Your task to perform on an android device: choose inbox layout in the gmail app Image 0: 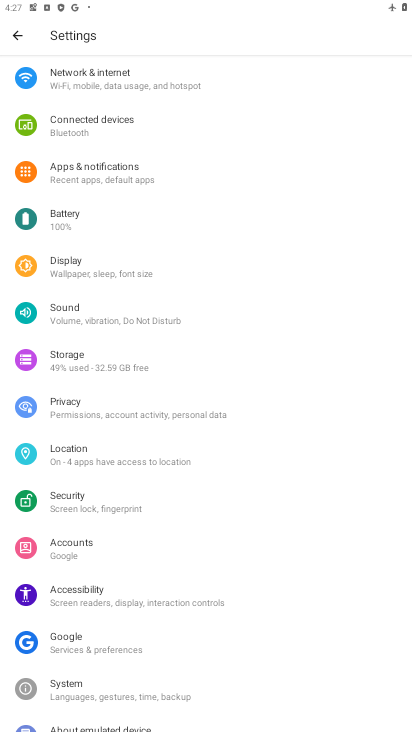
Step 0: press home button
Your task to perform on an android device: choose inbox layout in the gmail app Image 1: 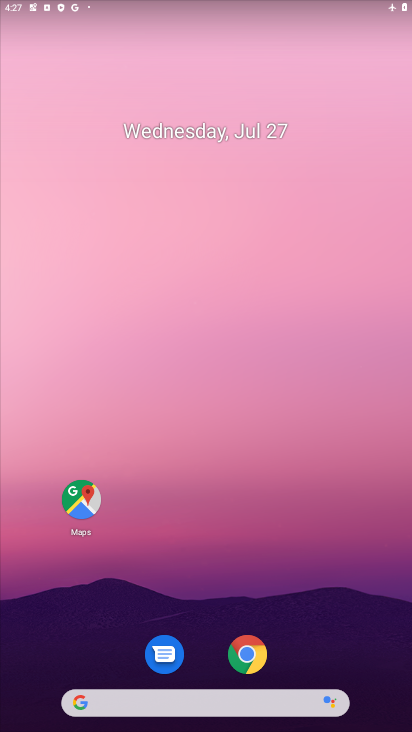
Step 1: drag from (141, 691) to (209, 259)
Your task to perform on an android device: choose inbox layout in the gmail app Image 2: 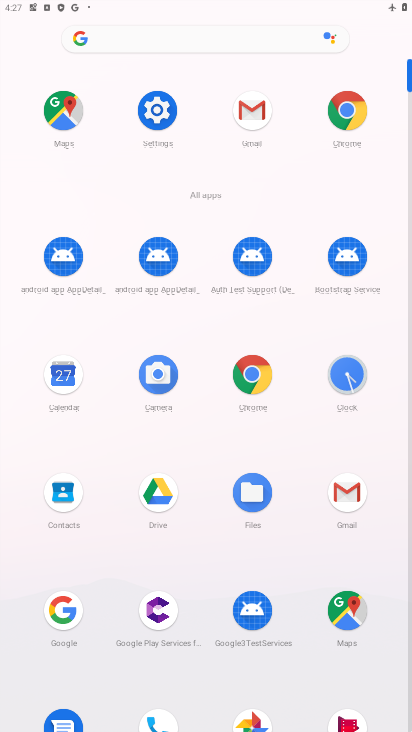
Step 2: click (351, 494)
Your task to perform on an android device: choose inbox layout in the gmail app Image 3: 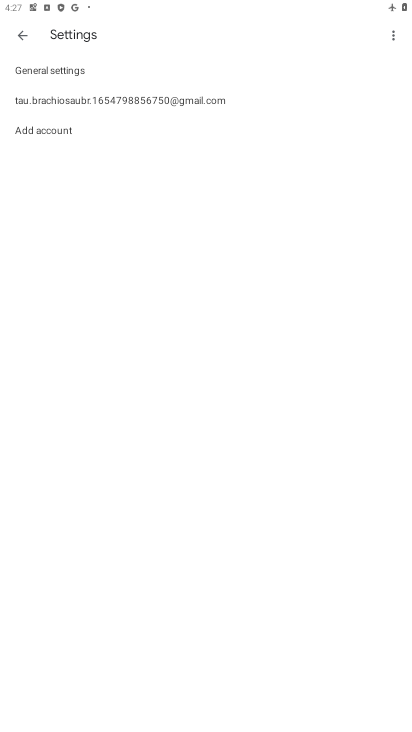
Step 3: click (64, 104)
Your task to perform on an android device: choose inbox layout in the gmail app Image 4: 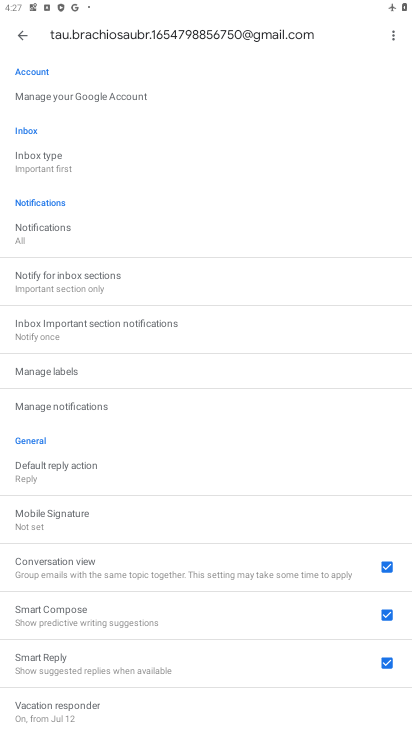
Step 4: click (57, 166)
Your task to perform on an android device: choose inbox layout in the gmail app Image 5: 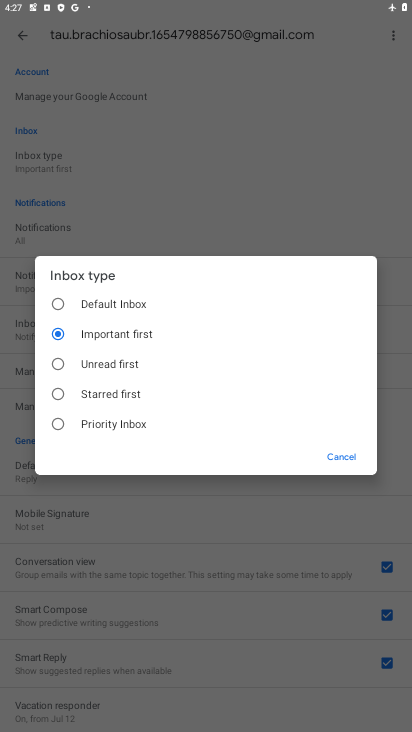
Step 5: click (97, 421)
Your task to perform on an android device: choose inbox layout in the gmail app Image 6: 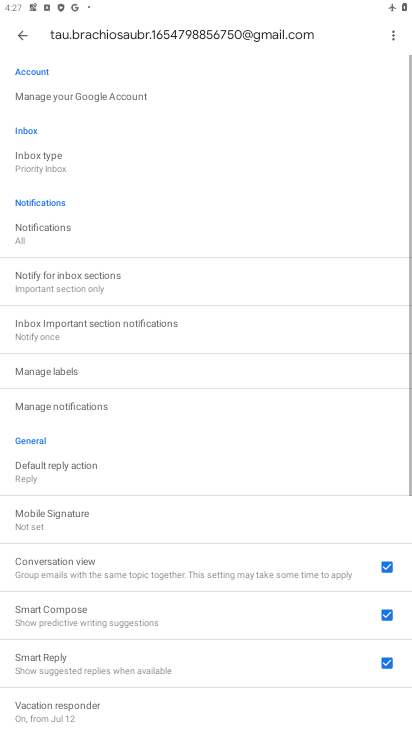
Step 6: task complete